Your task to perform on an android device: change the clock display to digital Image 0: 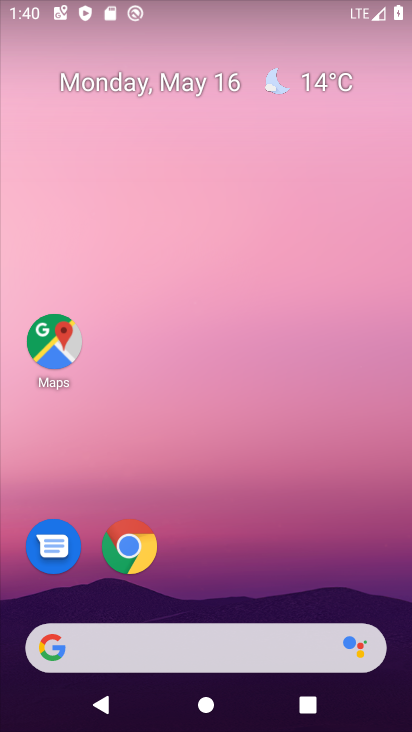
Step 0: press home button
Your task to perform on an android device: change the clock display to digital Image 1: 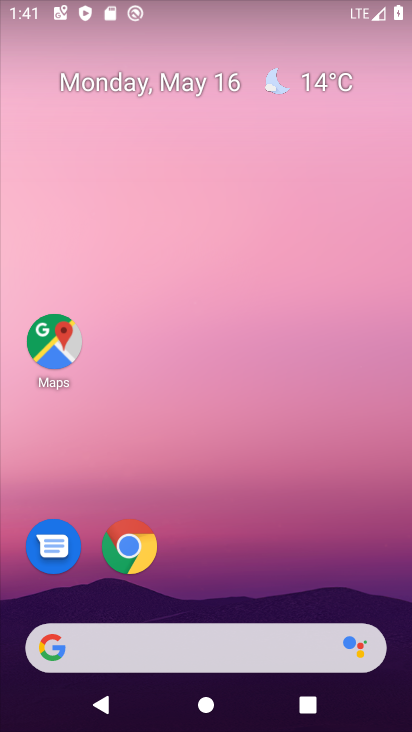
Step 1: drag from (246, 657) to (201, 233)
Your task to perform on an android device: change the clock display to digital Image 2: 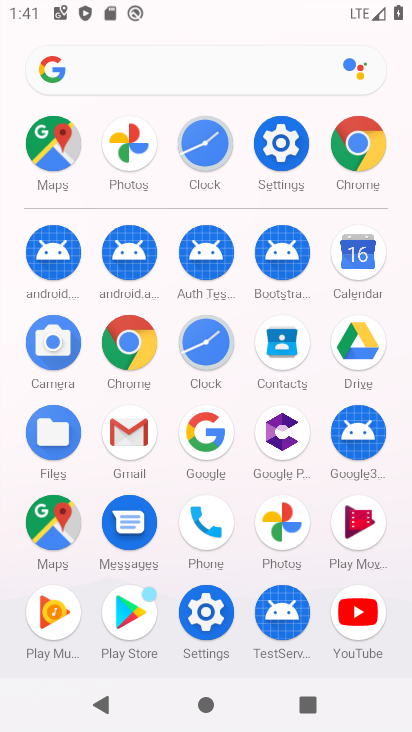
Step 2: click (286, 168)
Your task to perform on an android device: change the clock display to digital Image 3: 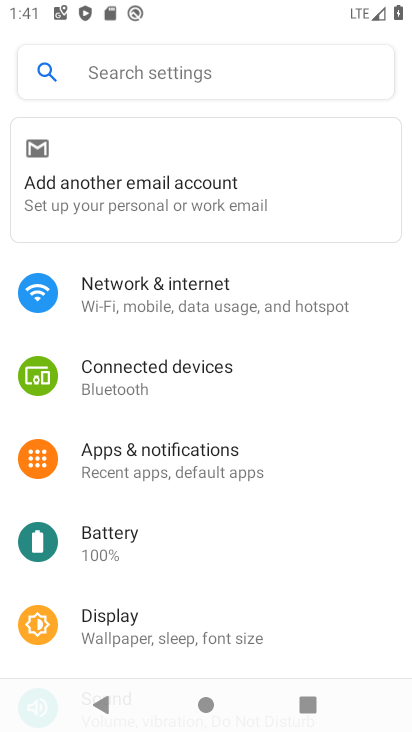
Step 3: press home button
Your task to perform on an android device: change the clock display to digital Image 4: 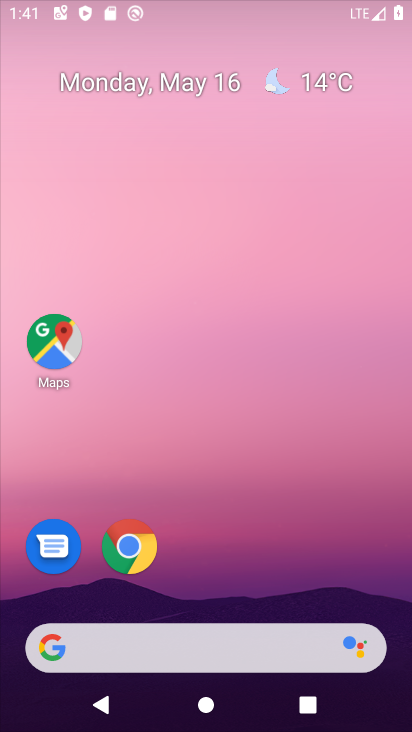
Step 4: drag from (292, 680) to (399, 206)
Your task to perform on an android device: change the clock display to digital Image 5: 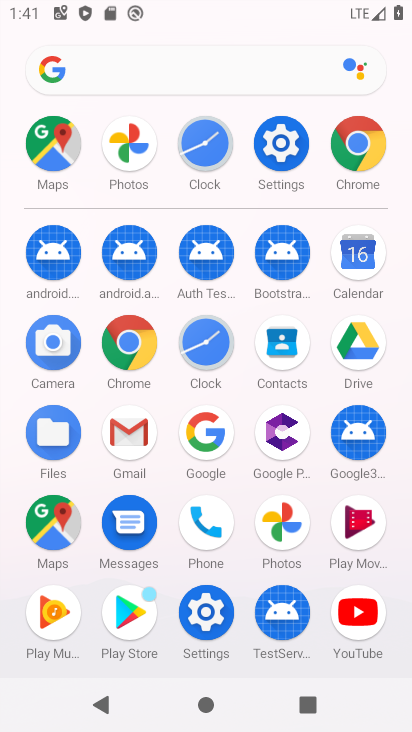
Step 5: click (218, 369)
Your task to perform on an android device: change the clock display to digital Image 6: 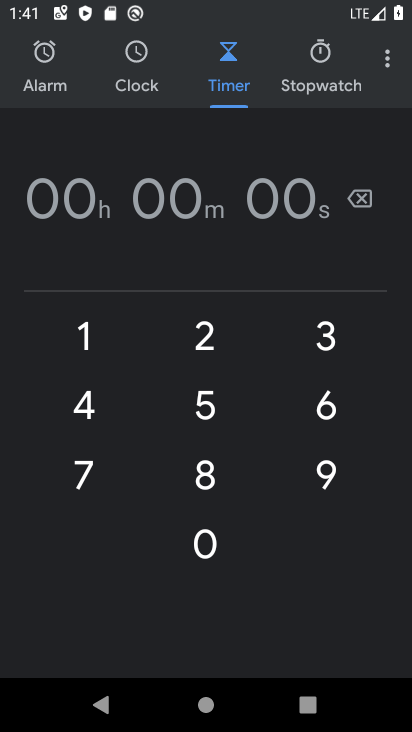
Step 6: click (382, 52)
Your task to perform on an android device: change the clock display to digital Image 7: 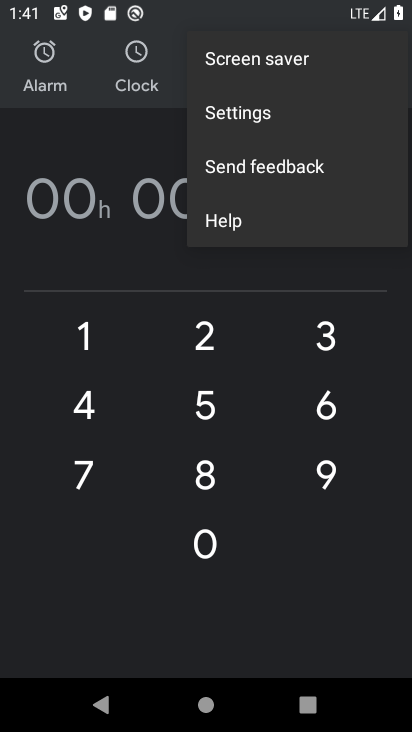
Step 7: click (250, 129)
Your task to perform on an android device: change the clock display to digital Image 8: 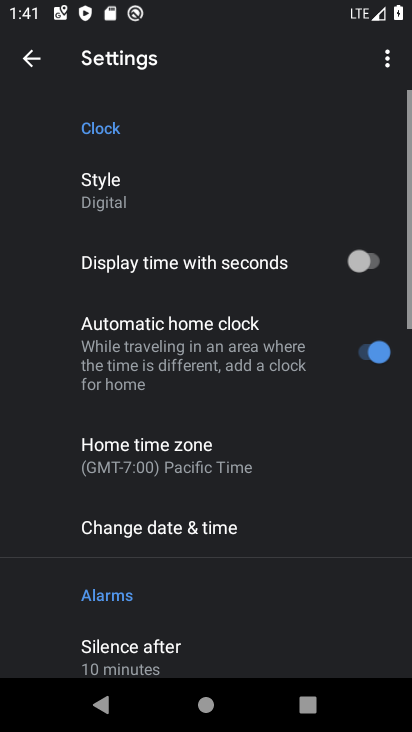
Step 8: click (182, 184)
Your task to perform on an android device: change the clock display to digital Image 9: 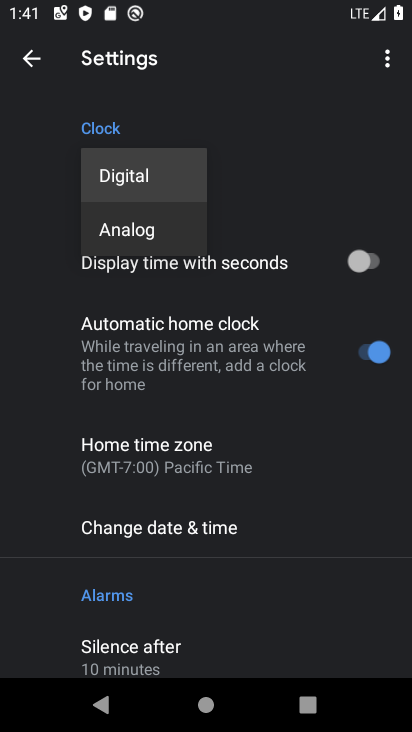
Step 9: click (163, 240)
Your task to perform on an android device: change the clock display to digital Image 10: 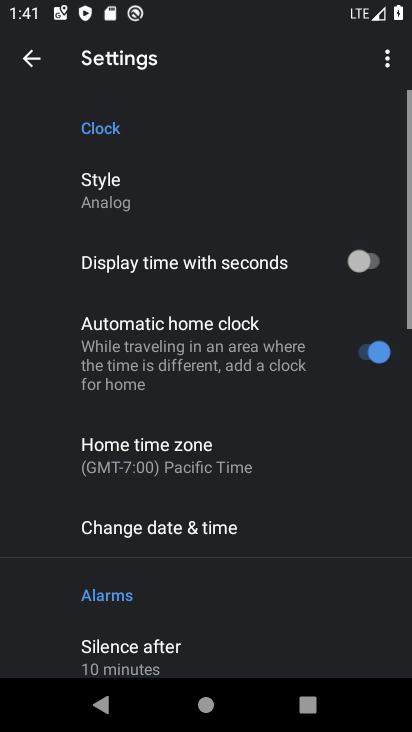
Step 10: task complete